Your task to perform on an android device: change notifications settings Image 0: 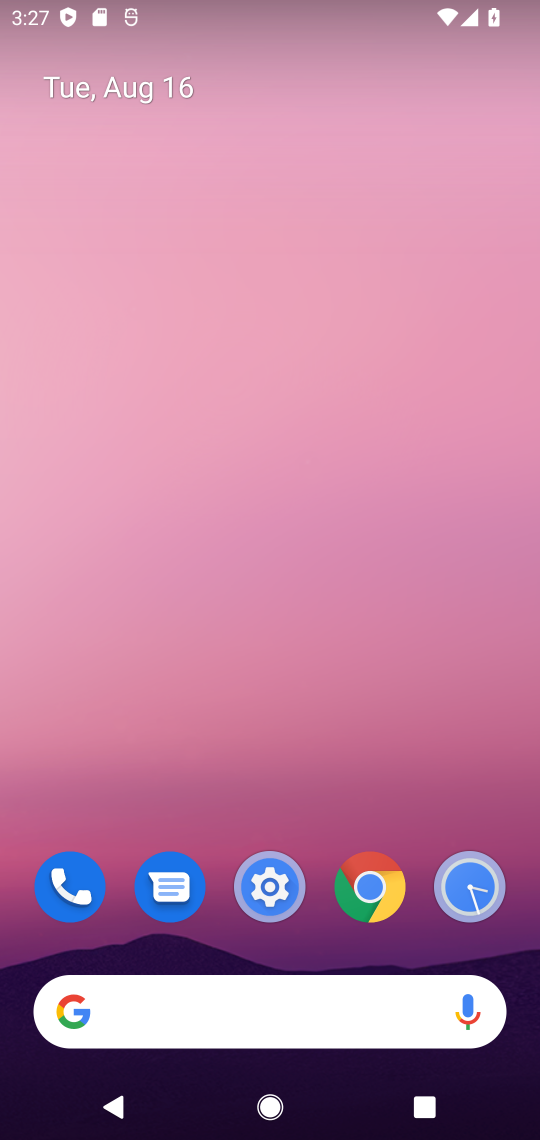
Step 0: drag from (255, 804) to (305, 65)
Your task to perform on an android device: change notifications settings Image 1: 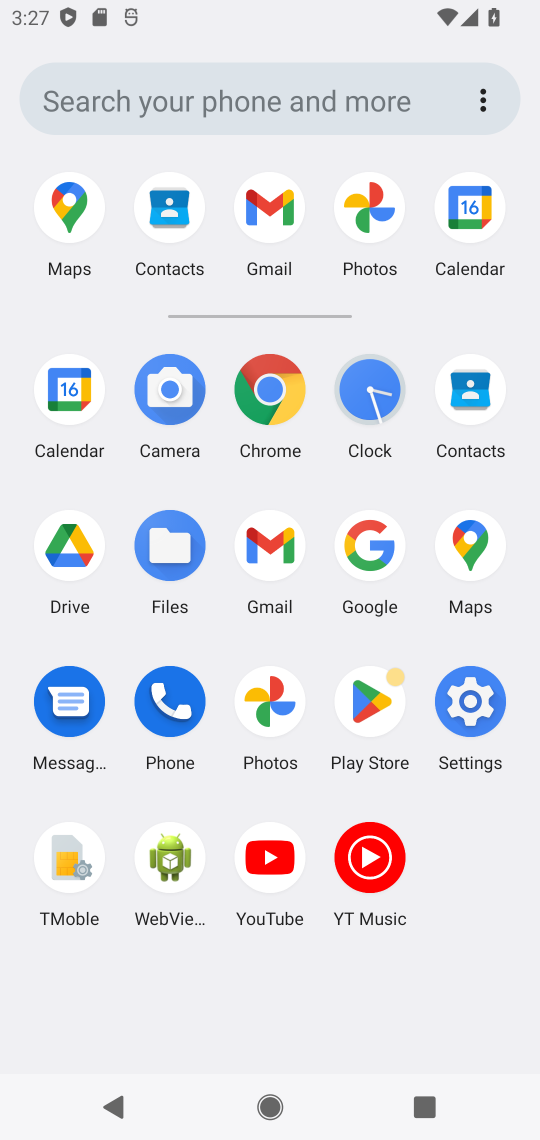
Step 1: click (461, 694)
Your task to perform on an android device: change notifications settings Image 2: 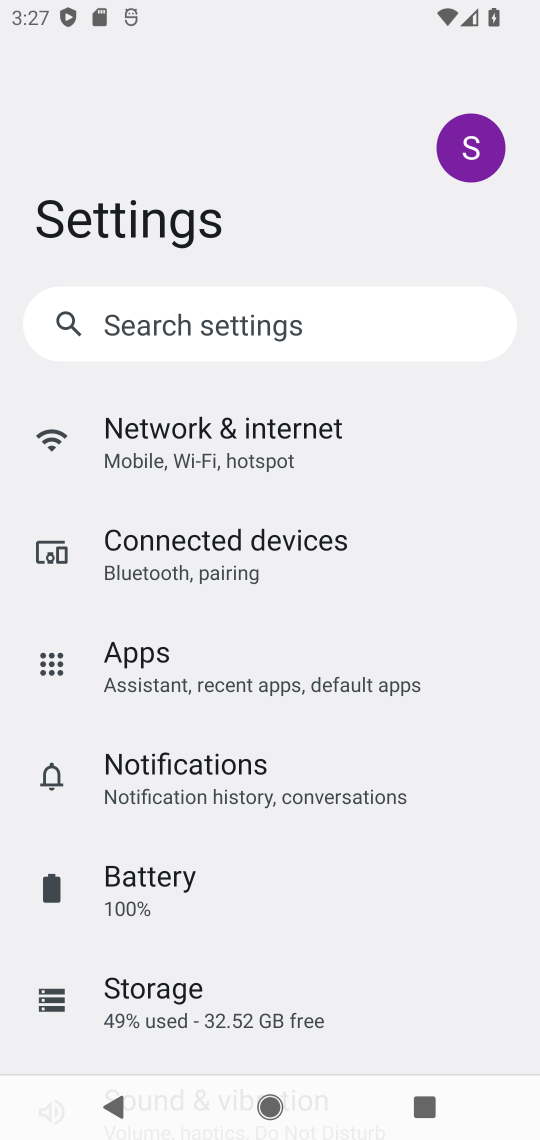
Step 2: click (317, 794)
Your task to perform on an android device: change notifications settings Image 3: 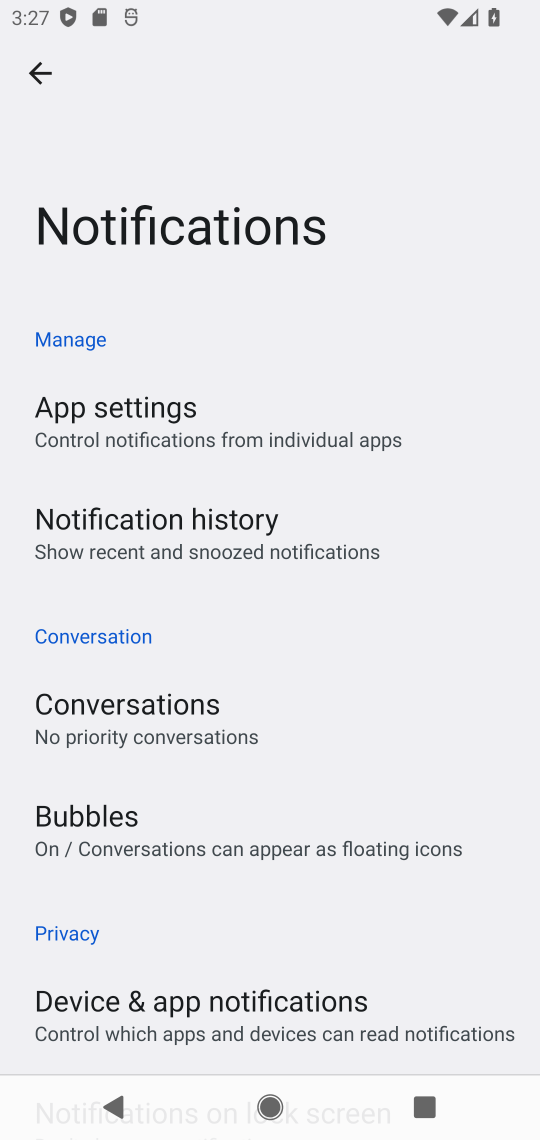
Step 3: task complete